Your task to perform on an android device: add a contact Image 0: 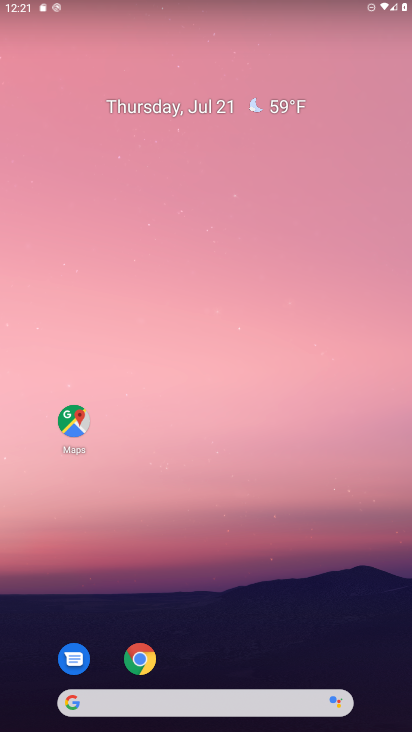
Step 0: press home button
Your task to perform on an android device: add a contact Image 1: 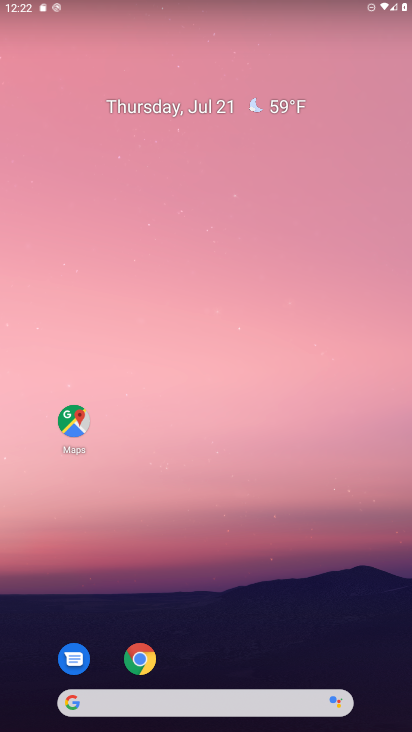
Step 1: drag from (28, 588) to (232, 78)
Your task to perform on an android device: add a contact Image 2: 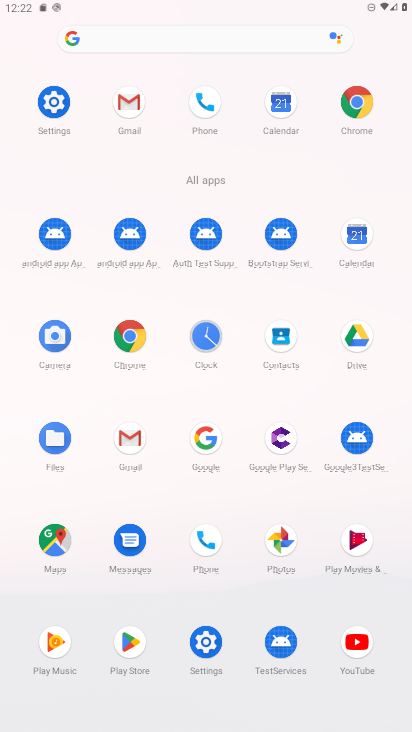
Step 2: click (202, 536)
Your task to perform on an android device: add a contact Image 3: 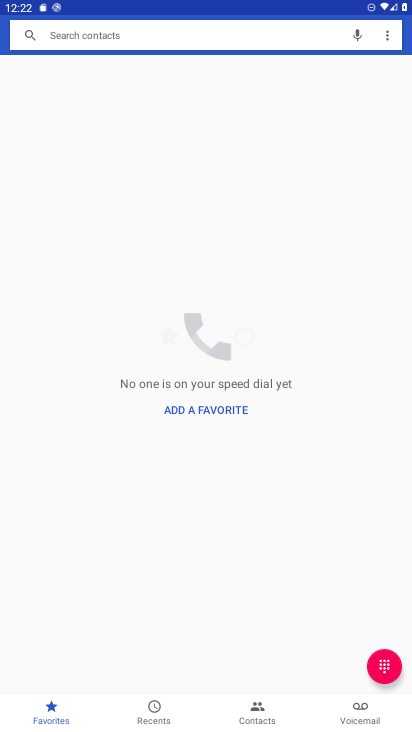
Step 3: click (261, 717)
Your task to perform on an android device: add a contact Image 4: 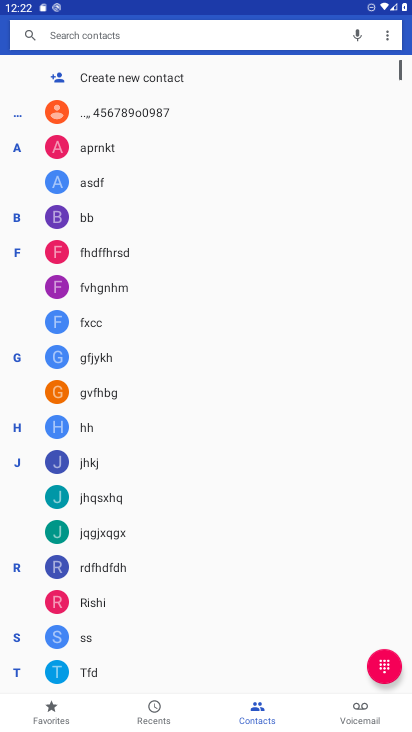
Step 4: click (118, 75)
Your task to perform on an android device: add a contact Image 5: 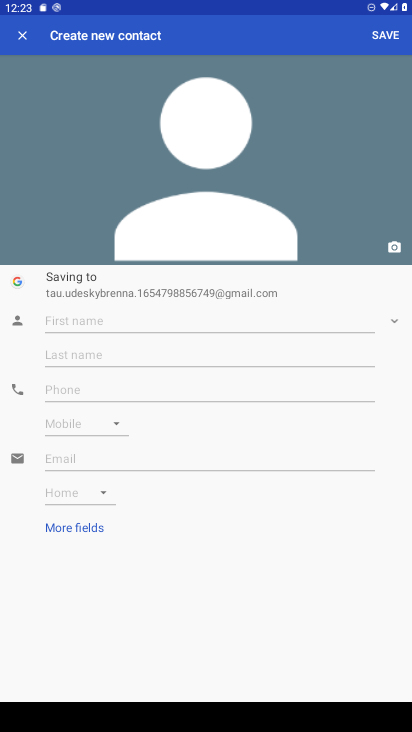
Step 5: click (146, 325)
Your task to perform on an android device: add a contact Image 6: 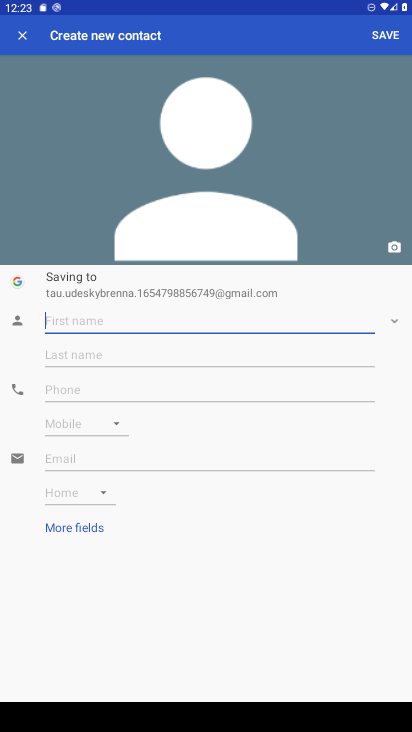
Step 6: type "ghghghghgh"
Your task to perform on an android device: add a contact Image 7: 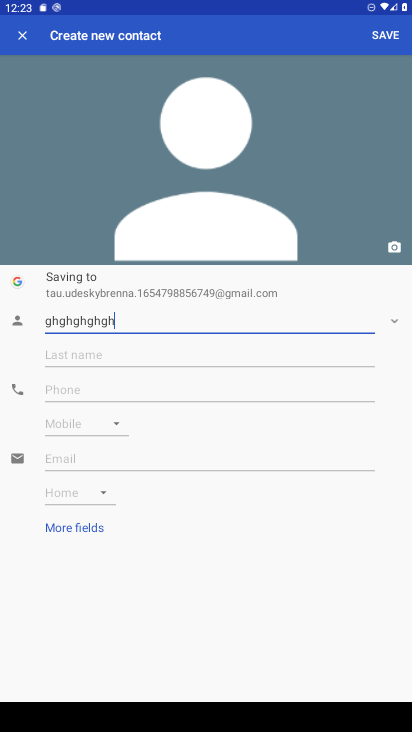
Step 7: type ""
Your task to perform on an android device: add a contact Image 8: 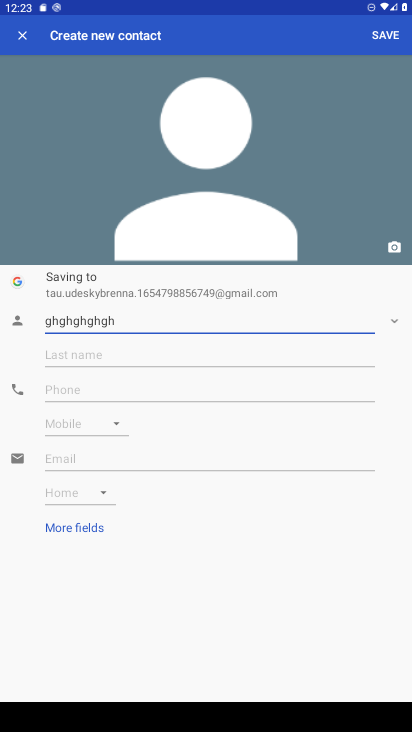
Step 8: click (365, 31)
Your task to perform on an android device: add a contact Image 9: 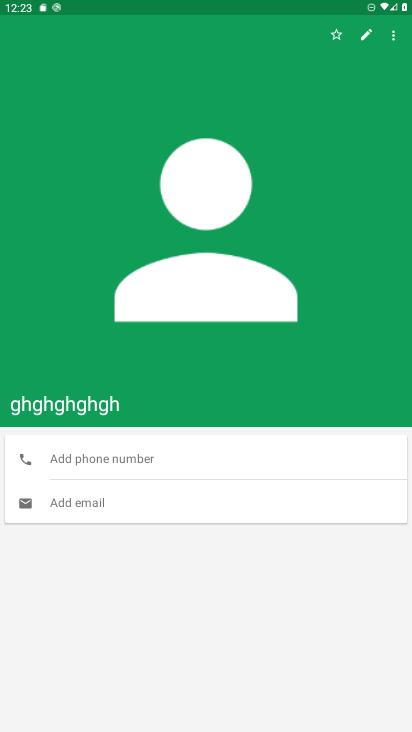
Step 9: task complete